Your task to perform on an android device: set the timer Image 0: 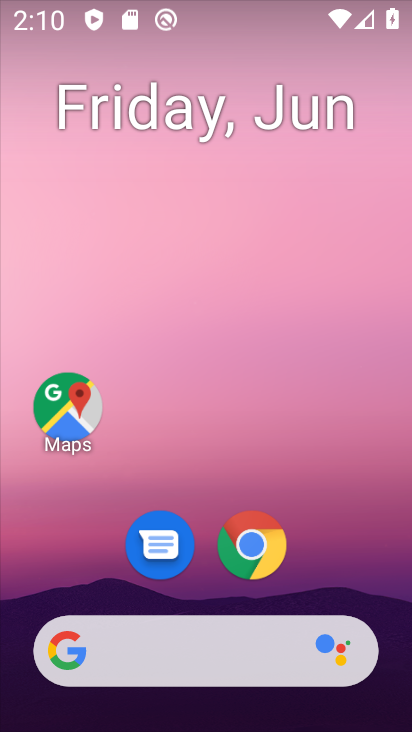
Step 0: drag from (221, 579) to (231, 2)
Your task to perform on an android device: set the timer Image 1: 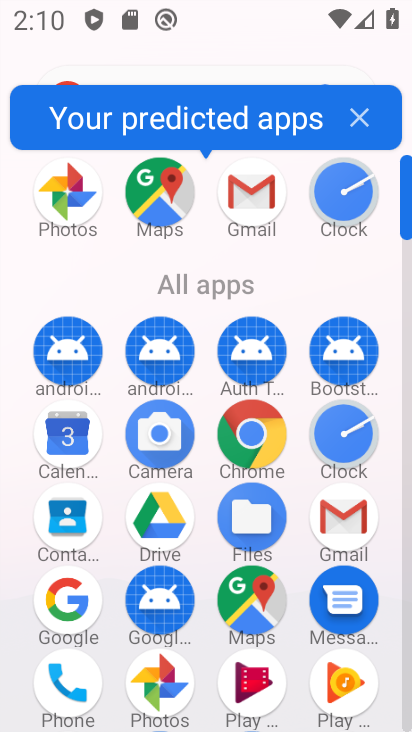
Step 1: click (351, 433)
Your task to perform on an android device: set the timer Image 2: 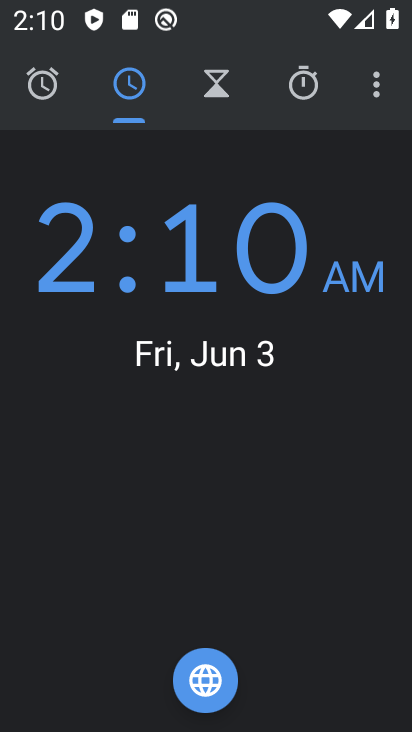
Step 2: click (229, 97)
Your task to perform on an android device: set the timer Image 3: 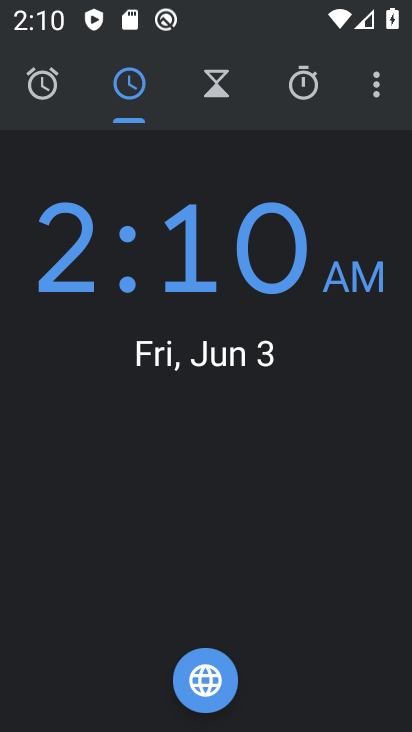
Step 3: click (211, 102)
Your task to perform on an android device: set the timer Image 4: 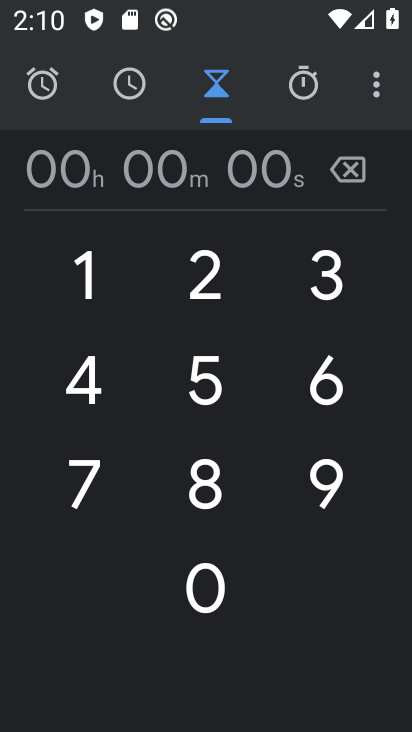
Step 4: click (286, 485)
Your task to perform on an android device: set the timer Image 5: 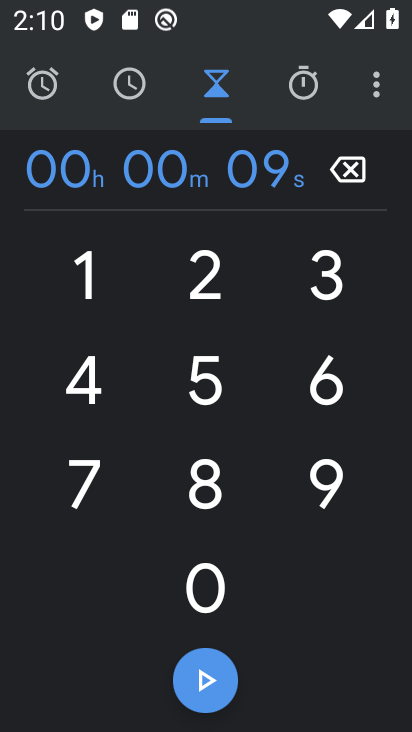
Step 5: click (92, 367)
Your task to perform on an android device: set the timer Image 6: 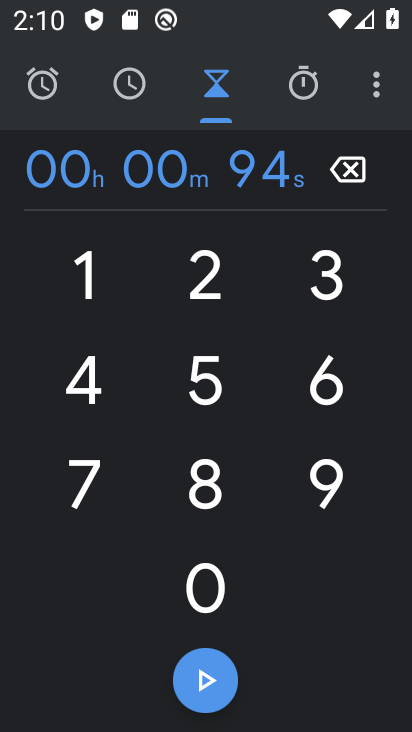
Step 6: click (321, 390)
Your task to perform on an android device: set the timer Image 7: 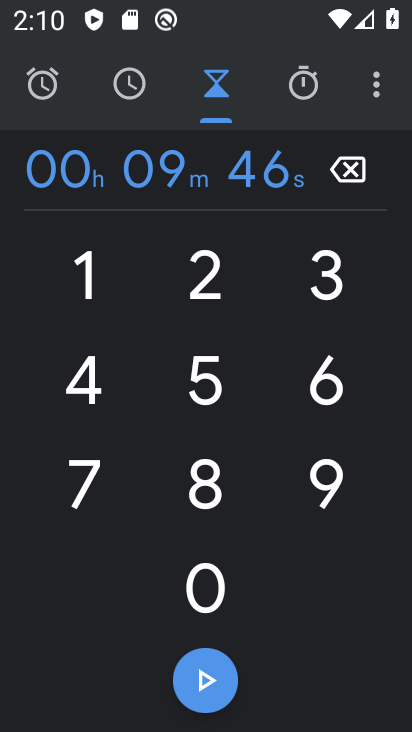
Step 7: drag from (243, 635) to (234, 671)
Your task to perform on an android device: set the timer Image 8: 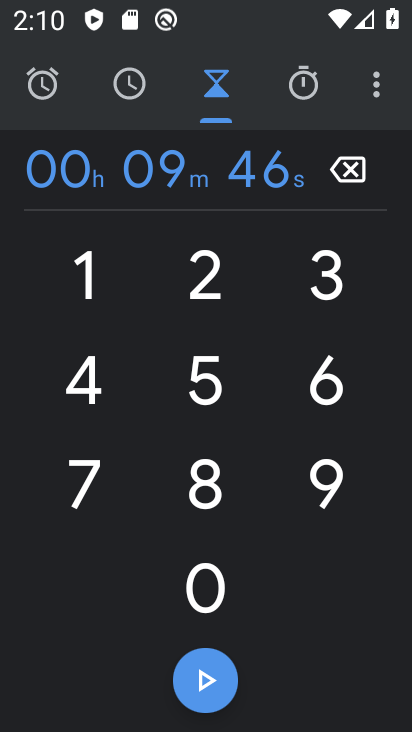
Step 8: click (210, 683)
Your task to perform on an android device: set the timer Image 9: 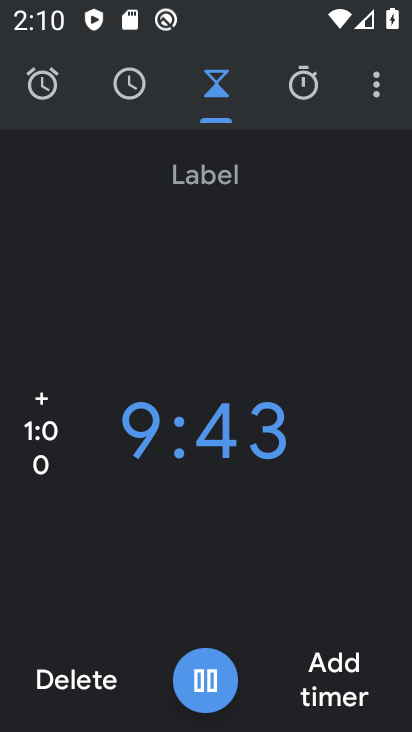
Step 9: task complete